Your task to perform on an android device: change the clock display to show seconds Image 0: 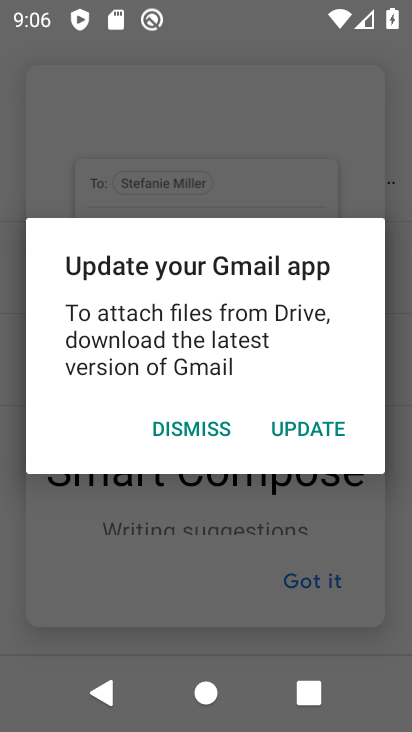
Step 0: press home button
Your task to perform on an android device: change the clock display to show seconds Image 1: 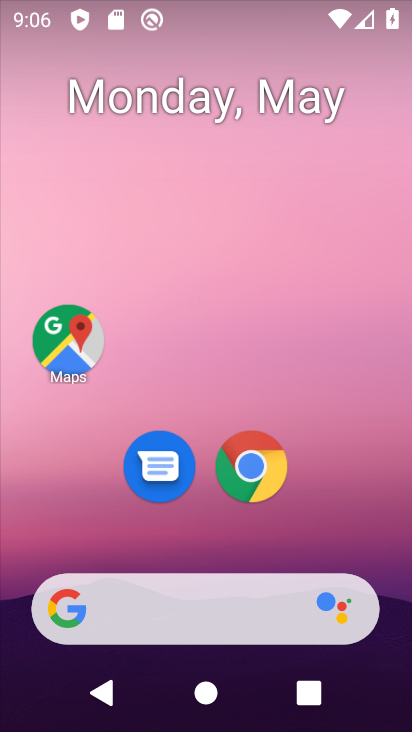
Step 1: drag from (225, 550) to (259, 40)
Your task to perform on an android device: change the clock display to show seconds Image 2: 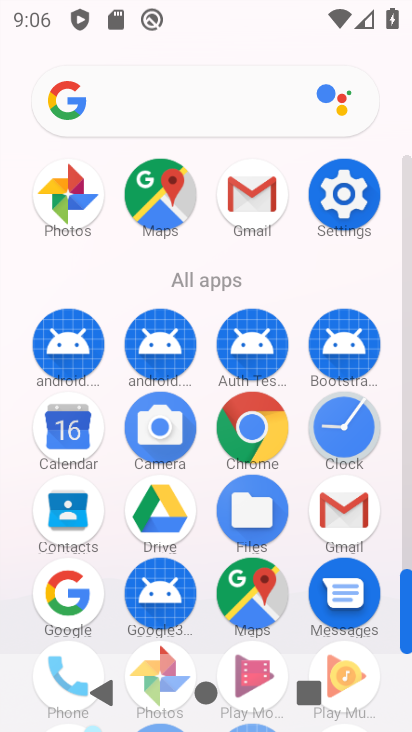
Step 2: click (339, 435)
Your task to perform on an android device: change the clock display to show seconds Image 3: 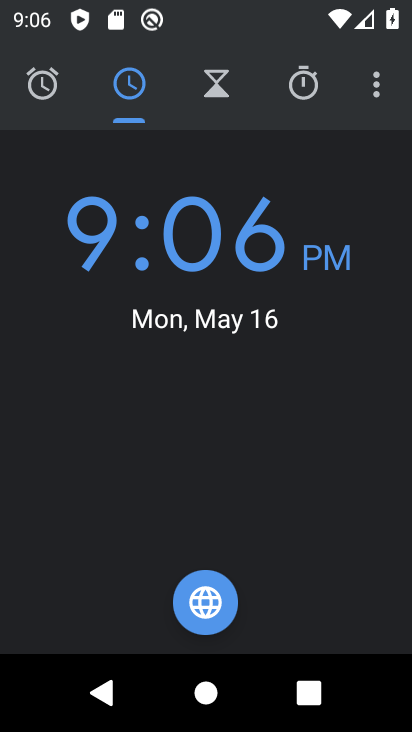
Step 3: click (367, 82)
Your task to perform on an android device: change the clock display to show seconds Image 4: 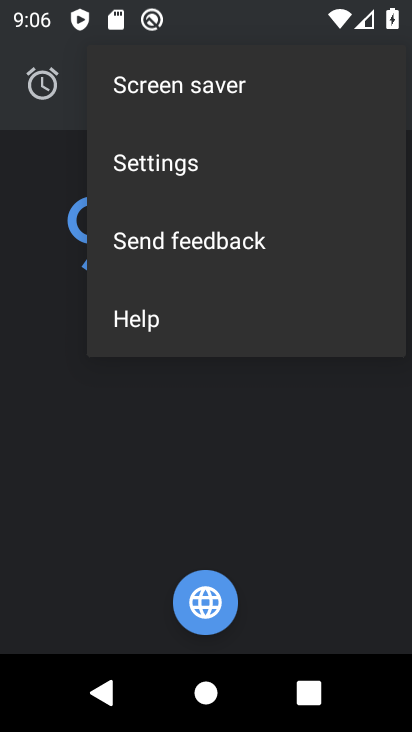
Step 4: click (238, 179)
Your task to perform on an android device: change the clock display to show seconds Image 5: 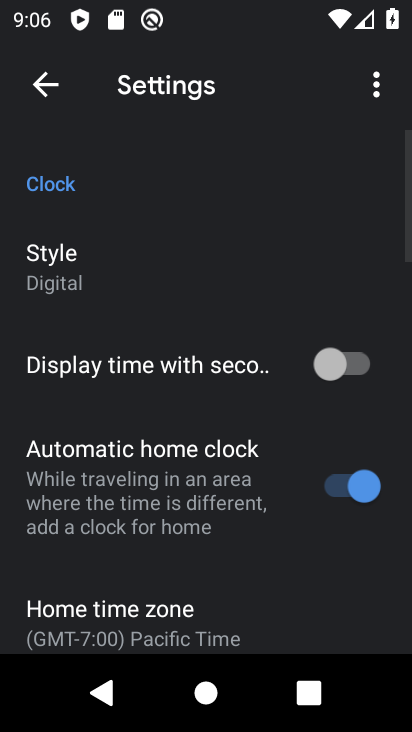
Step 5: click (341, 366)
Your task to perform on an android device: change the clock display to show seconds Image 6: 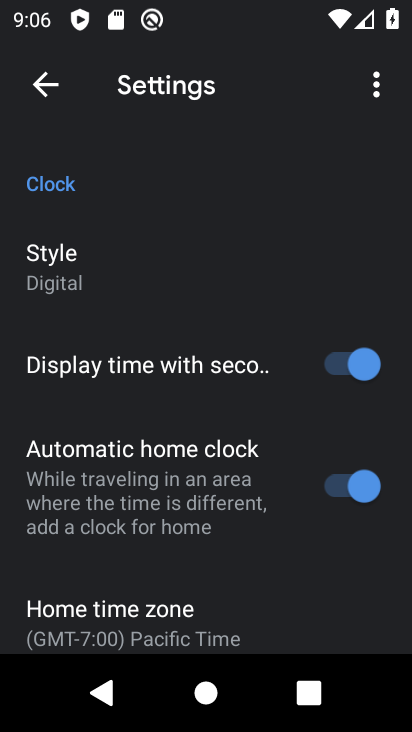
Step 6: task complete